Your task to perform on an android device: move a message to another label in the gmail app Image 0: 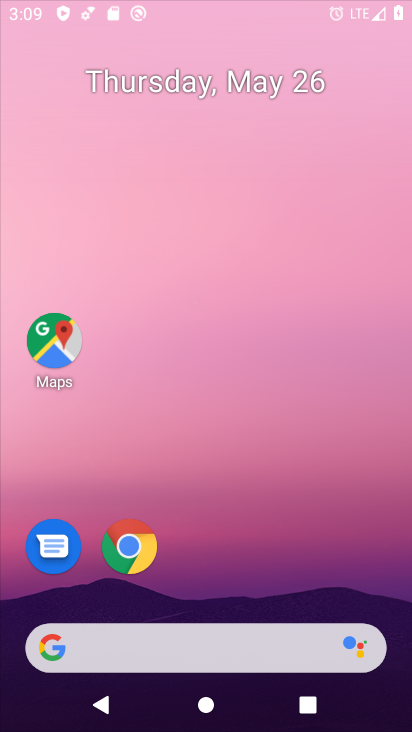
Step 0: click (291, 147)
Your task to perform on an android device: move a message to another label in the gmail app Image 1: 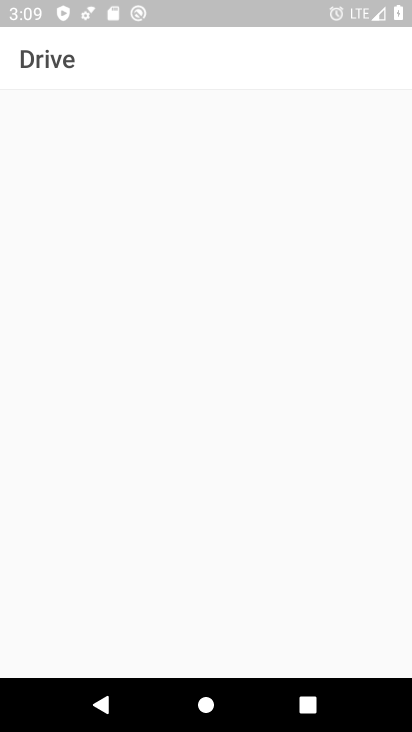
Step 1: press back button
Your task to perform on an android device: move a message to another label in the gmail app Image 2: 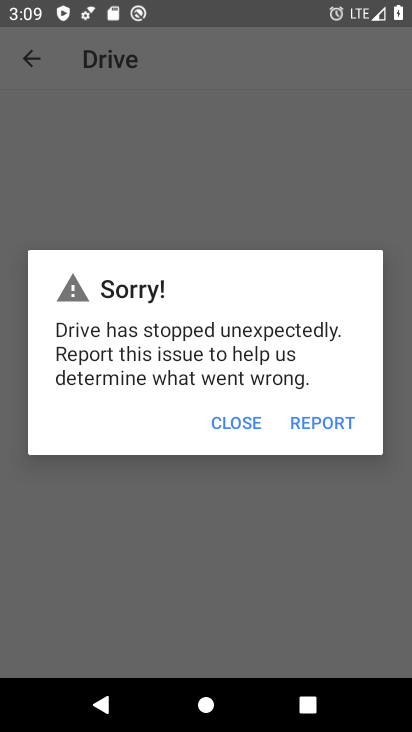
Step 2: press home button
Your task to perform on an android device: move a message to another label in the gmail app Image 3: 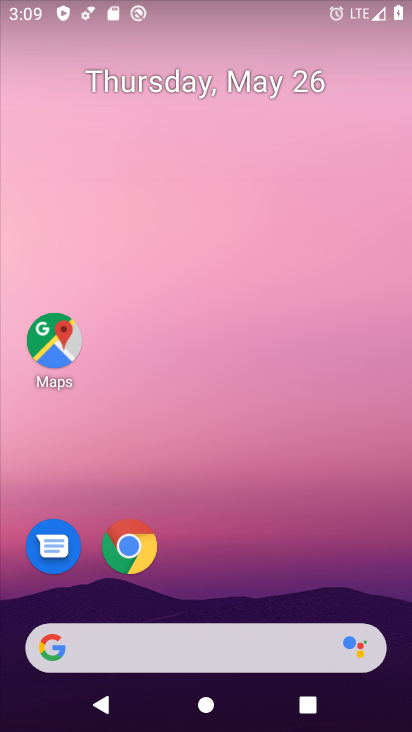
Step 3: drag from (172, 590) to (257, 97)
Your task to perform on an android device: move a message to another label in the gmail app Image 4: 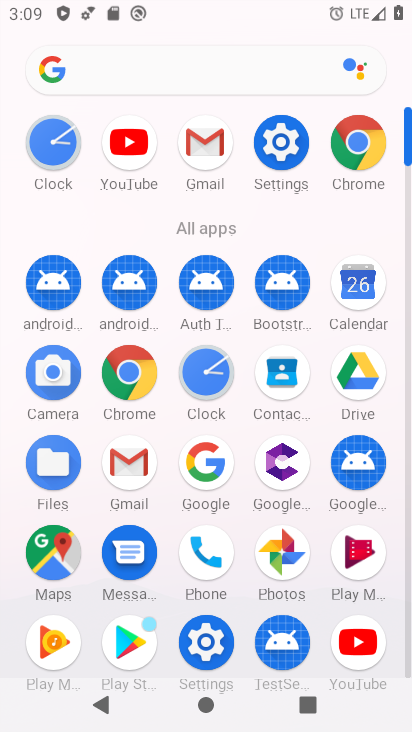
Step 4: click (189, 131)
Your task to perform on an android device: move a message to another label in the gmail app Image 5: 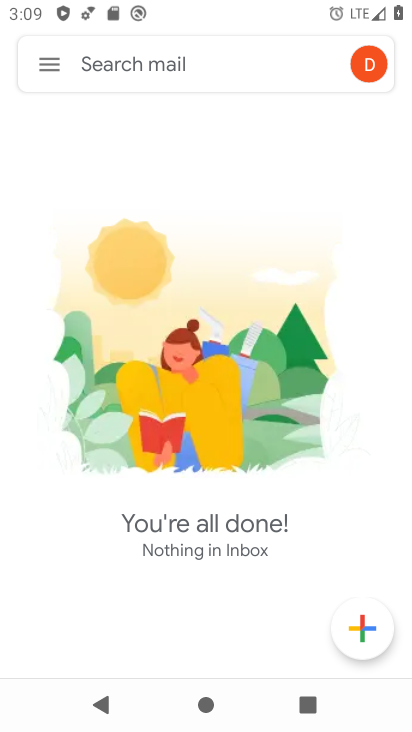
Step 5: click (36, 53)
Your task to perform on an android device: move a message to another label in the gmail app Image 6: 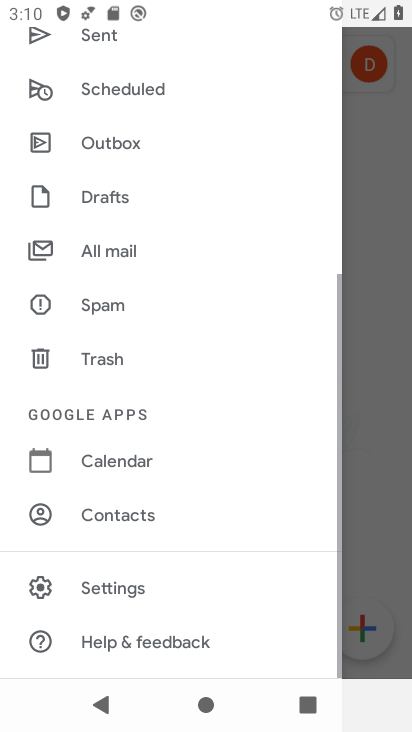
Step 6: drag from (160, 141) to (163, 539)
Your task to perform on an android device: move a message to another label in the gmail app Image 7: 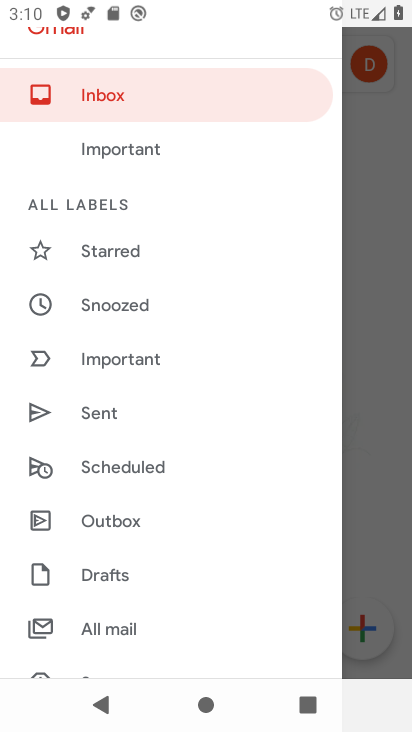
Step 7: click (93, 618)
Your task to perform on an android device: move a message to another label in the gmail app Image 8: 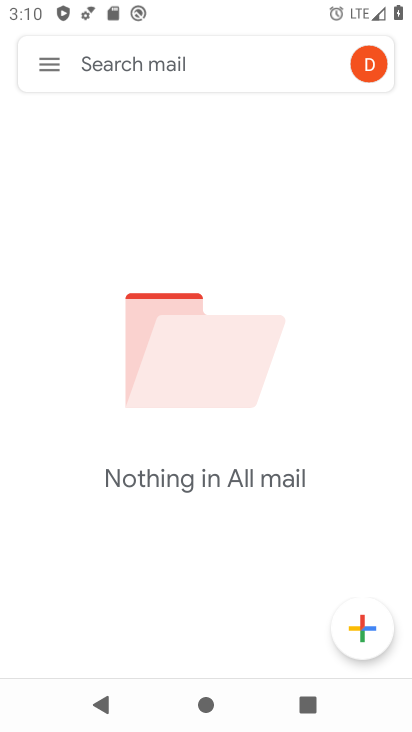
Step 8: task complete